Your task to perform on an android device: Go to Wikipedia Image 0: 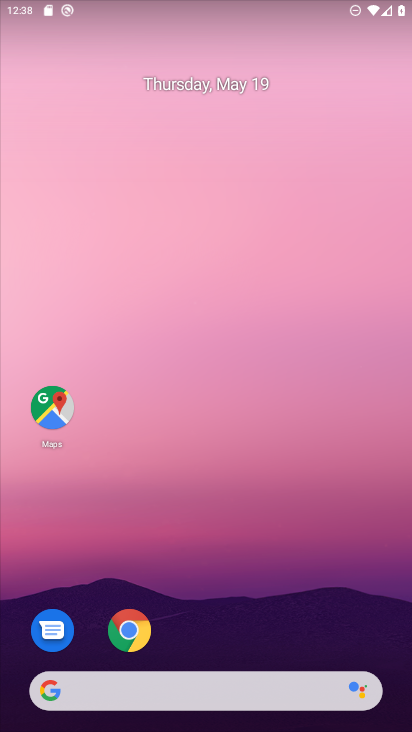
Step 0: drag from (219, 653) to (209, 162)
Your task to perform on an android device: Go to Wikipedia Image 1: 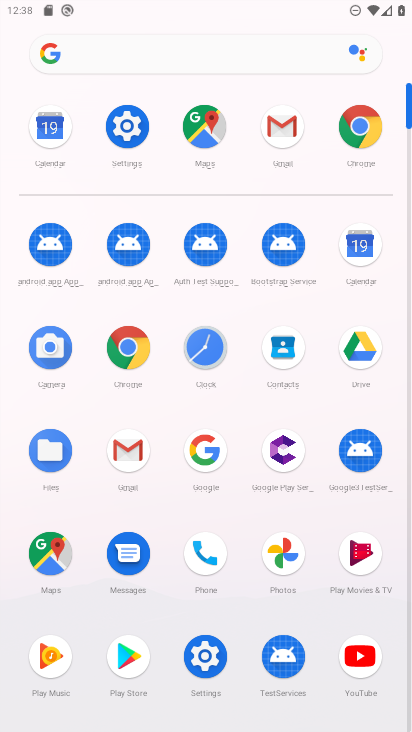
Step 1: click (131, 127)
Your task to perform on an android device: Go to Wikipedia Image 2: 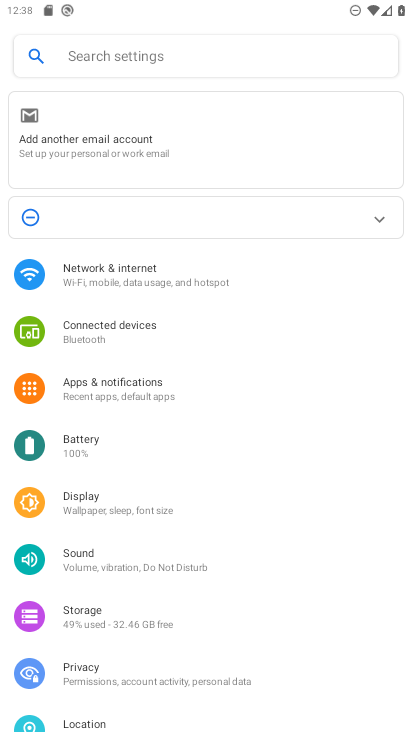
Step 2: click (136, 55)
Your task to perform on an android device: Go to Wikipedia Image 3: 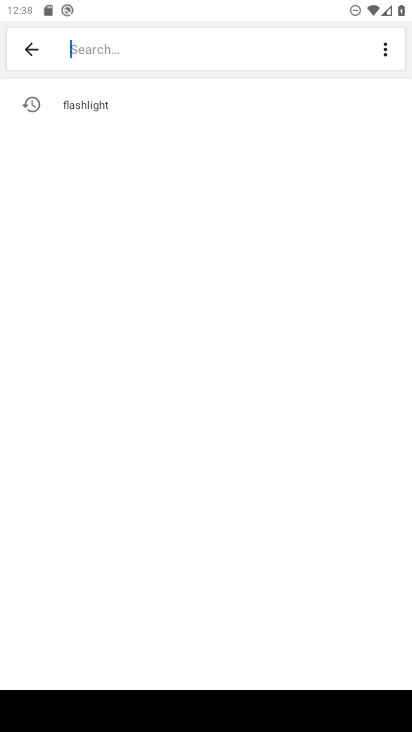
Step 3: press home button
Your task to perform on an android device: Go to Wikipedia Image 4: 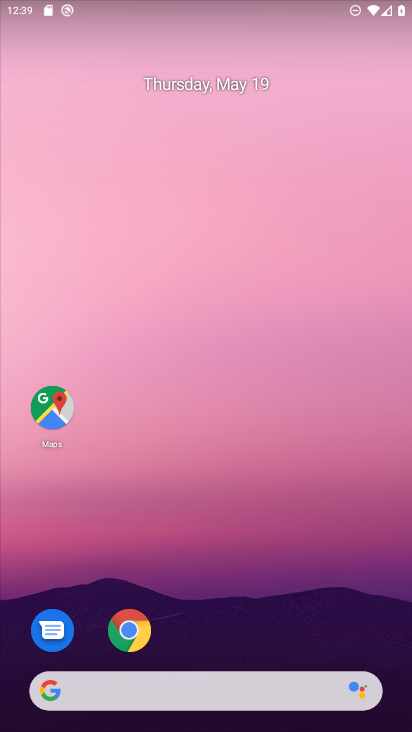
Step 4: click (176, 692)
Your task to perform on an android device: Go to Wikipedia Image 5: 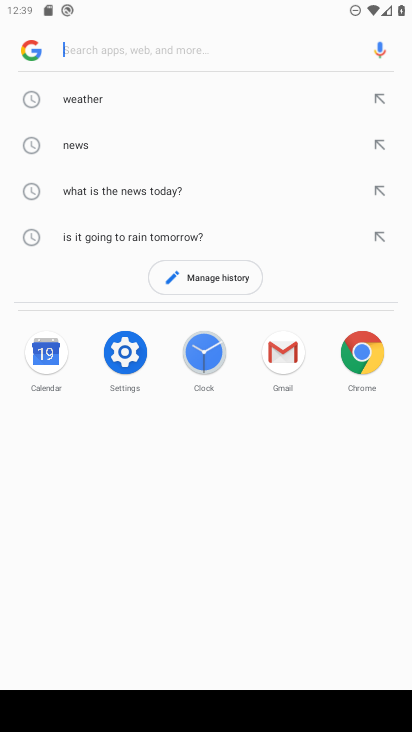
Step 5: type "Wikipedia"
Your task to perform on an android device: Go to Wikipedia Image 6: 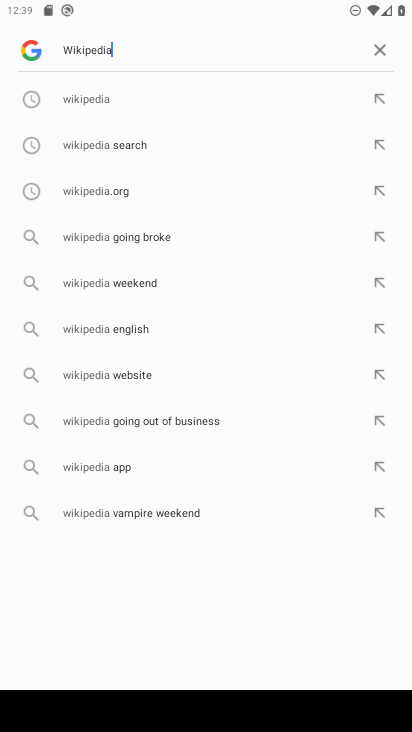
Step 6: type ""
Your task to perform on an android device: Go to Wikipedia Image 7: 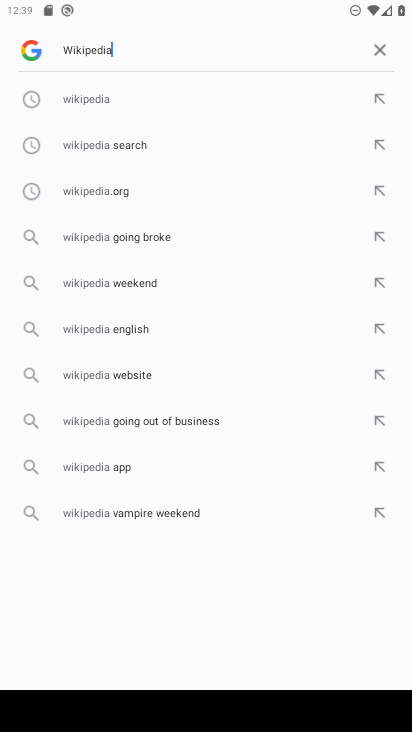
Step 7: click (107, 110)
Your task to perform on an android device: Go to Wikipedia Image 8: 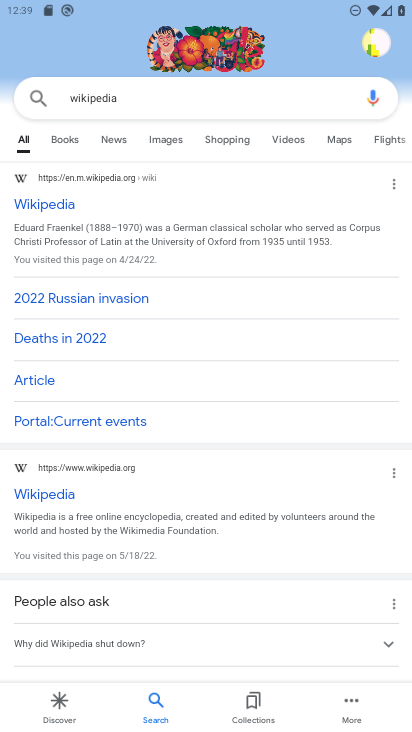
Step 8: click (39, 208)
Your task to perform on an android device: Go to Wikipedia Image 9: 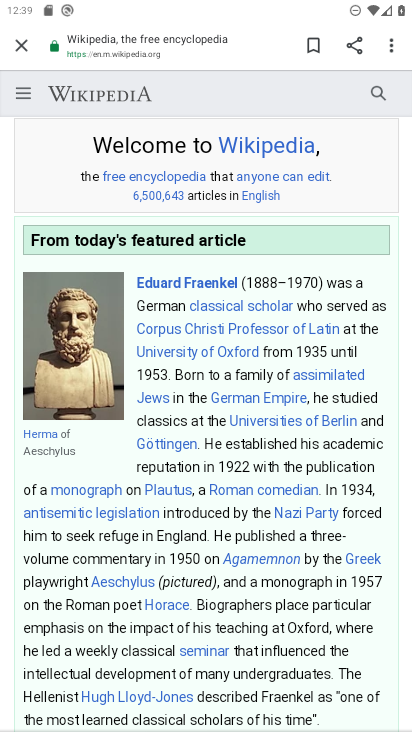
Step 9: task complete